Your task to perform on an android device: delete location history Image 0: 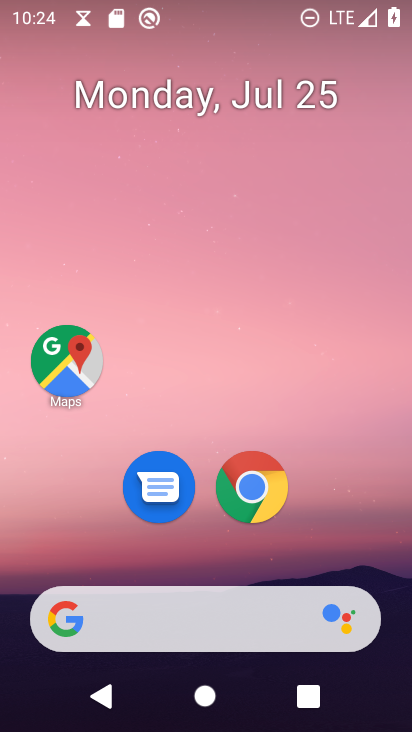
Step 0: click (87, 352)
Your task to perform on an android device: delete location history Image 1: 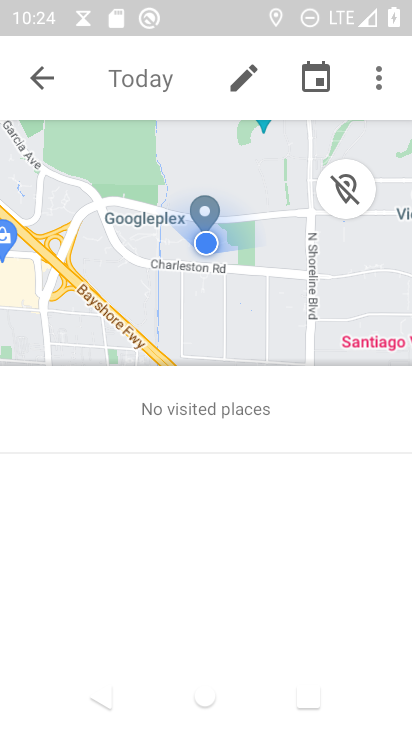
Step 1: click (37, 83)
Your task to perform on an android device: delete location history Image 2: 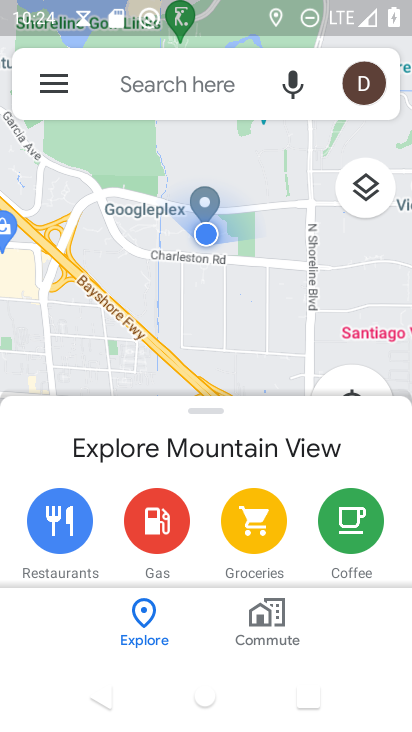
Step 2: click (60, 90)
Your task to perform on an android device: delete location history Image 3: 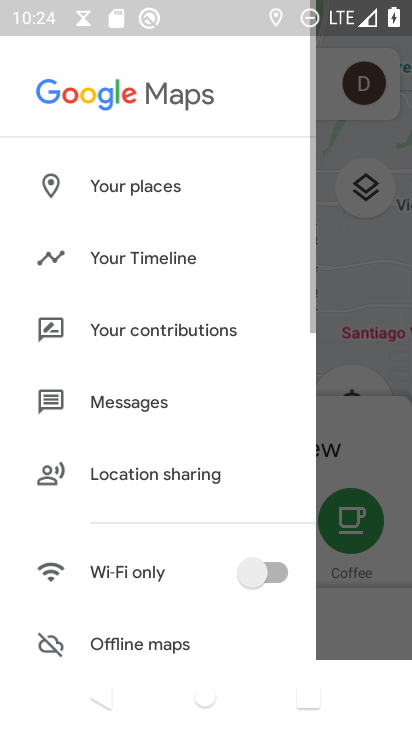
Step 3: click (128, 256)
Your task to perform on an android device: delete location history Image 4: 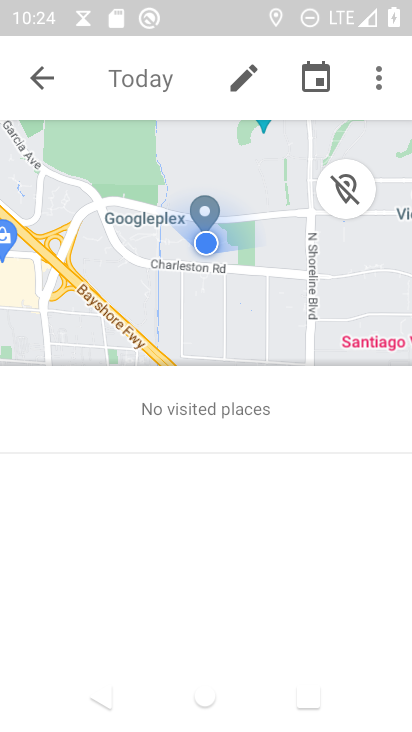
Step 4: click (381, 77)
Your task to perform on an android device: delete location history Image 5: 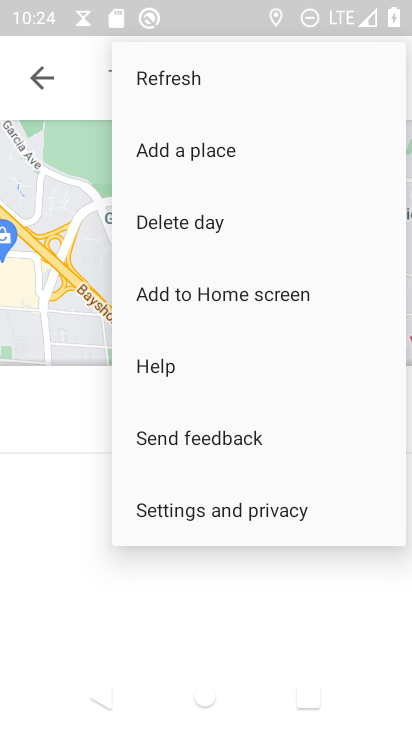
Step 5: click (220, 519)
Your task to perform on an android device: delete location history Image 6: 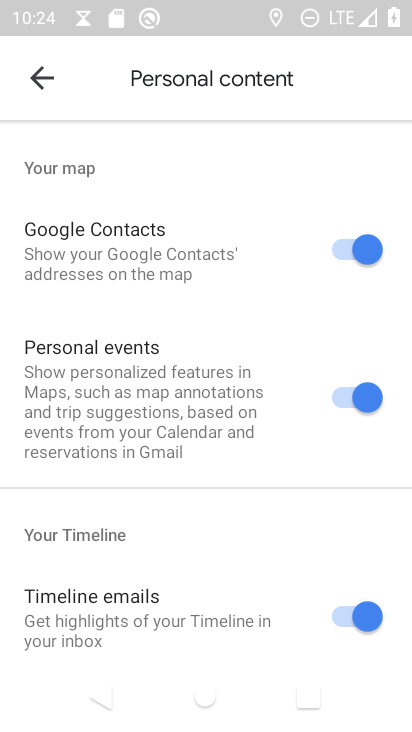
Step 6: drag from (247, 632) to (287, 44)
Your task to perform on an android device: delete location history Image 7: 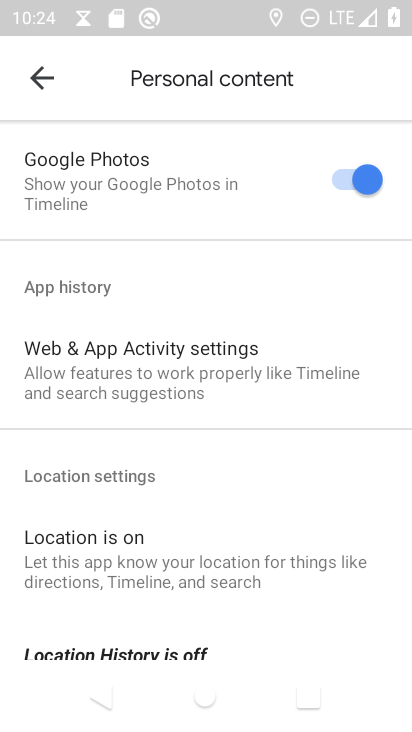
Step 7: drag from (232, 552) to (293, 134)
Your task to perform on an android device: delete location history Image 8: 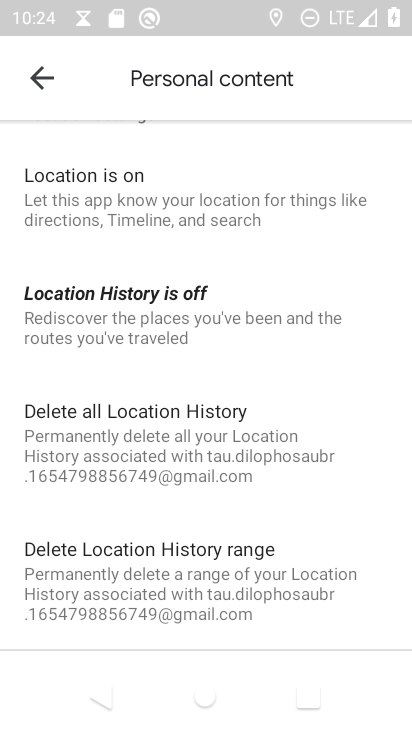
Step 8: click (202, 425)
Your task to perform on an android device: delete location history Image 9: 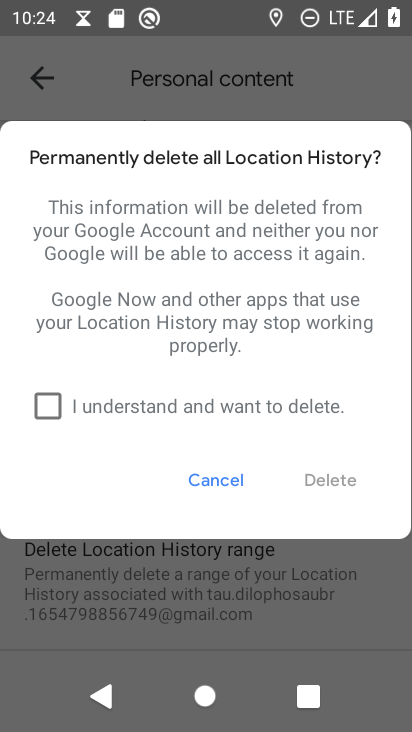
Step 9: click (63, 407)
Your task to perform on an android device: delete location history Image 10: 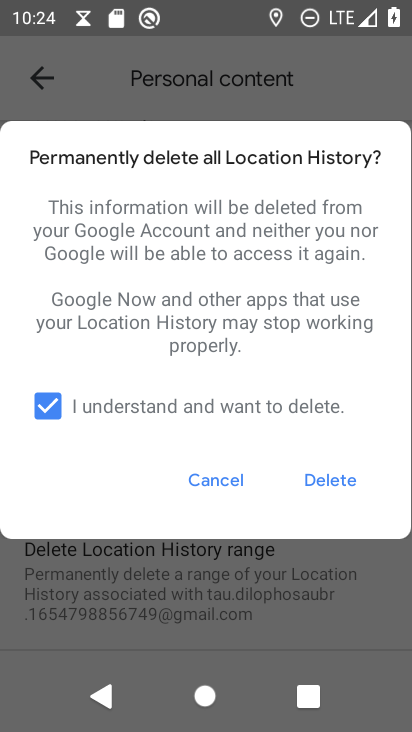
Step 10: click (335, 486)
Your task to perform on an android device: delete location history Image 11: 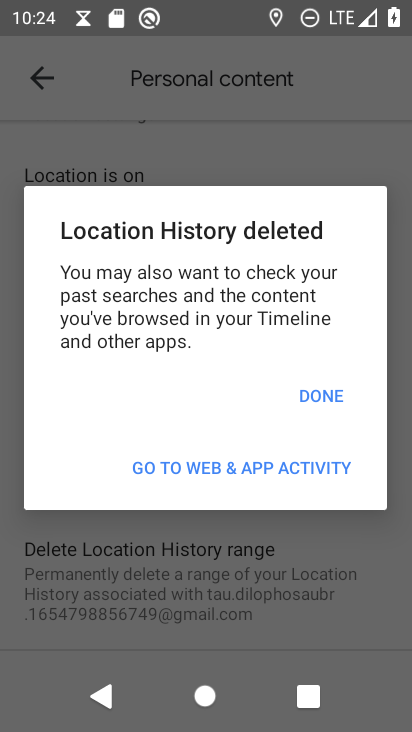
Step 11: click (327, 394)
Your task to perform on an android device: delete location history Image 12: 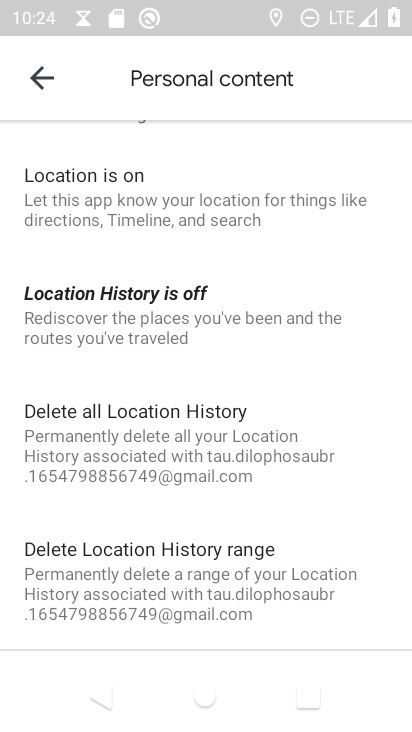
Step 12: task complete